Your task to perform on an android device: Open settings Image 0: 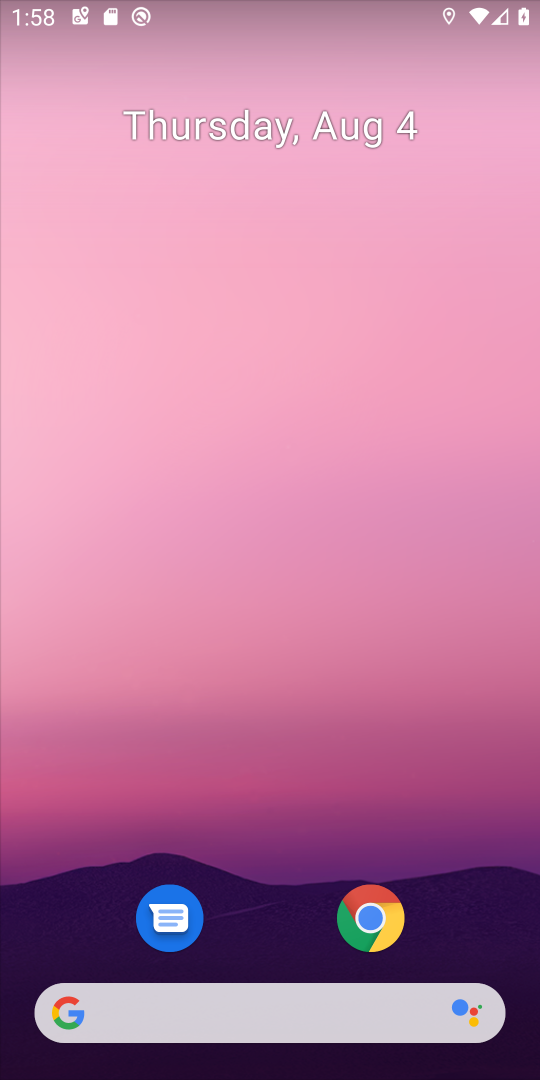
Step 0: drag from (273, 932) to (288, 376)
Your task to perform on an android device: Open settings Image 1: 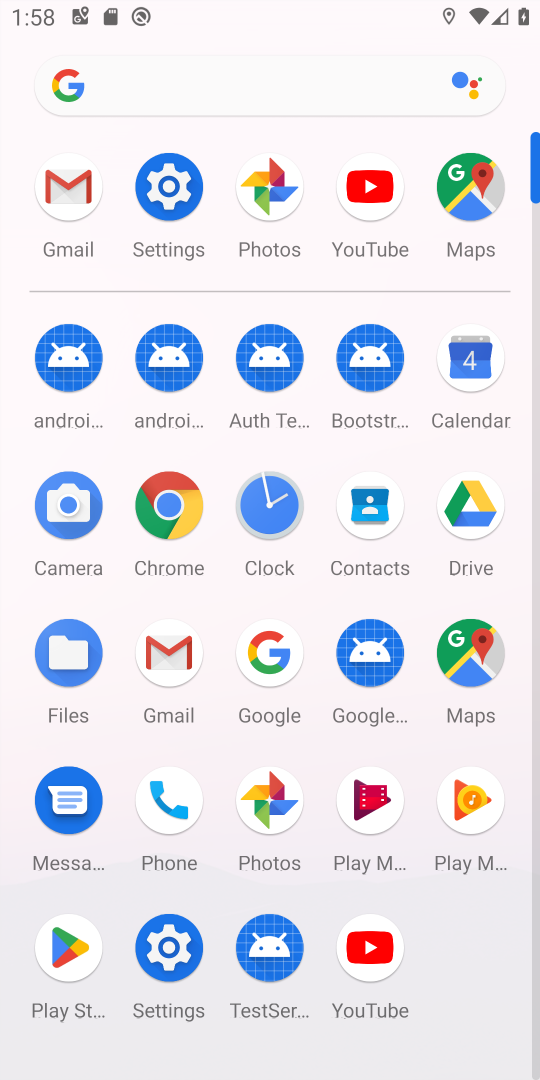
Step 1: click (168, 201)
Your task to perform on an android device: Open settings Image 2: 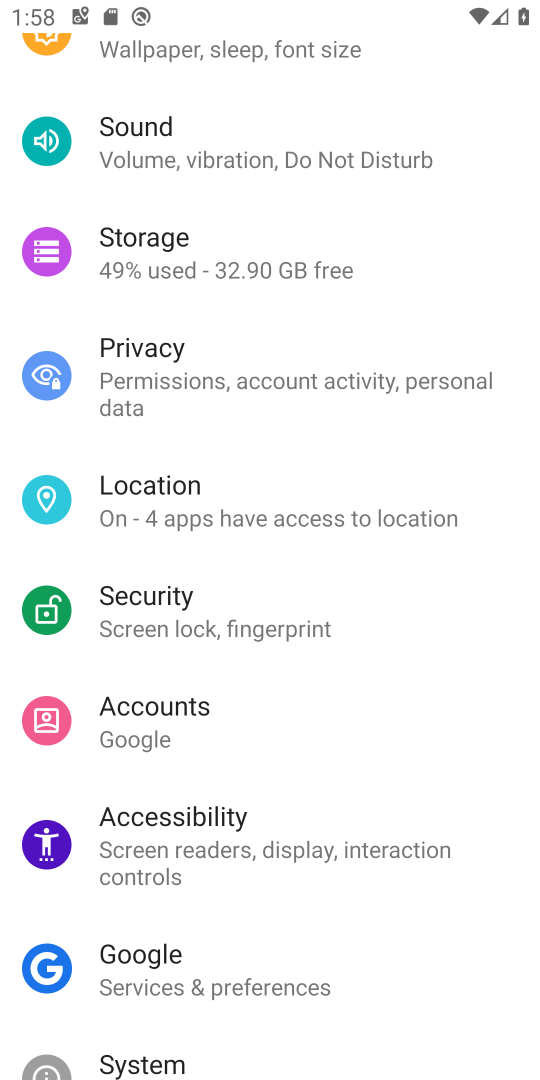
Step 2: task complete